Your task to perform on an android device: turn off sleep mode Image 0: 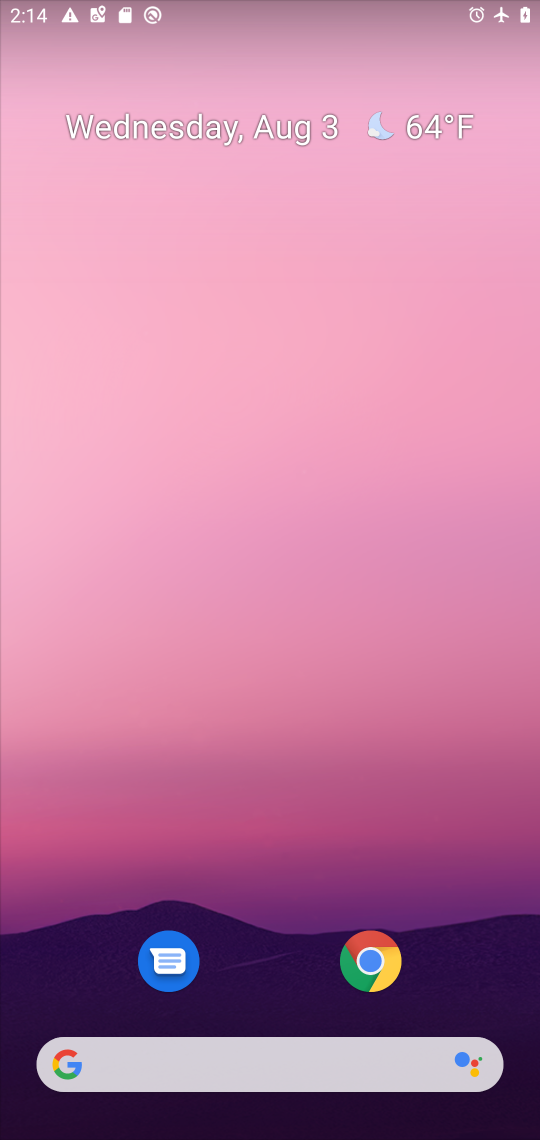
Step 0: drag from (254, 997) to (292, 102)
Your task to perform on an android device: turn off sleep mode Image 1: 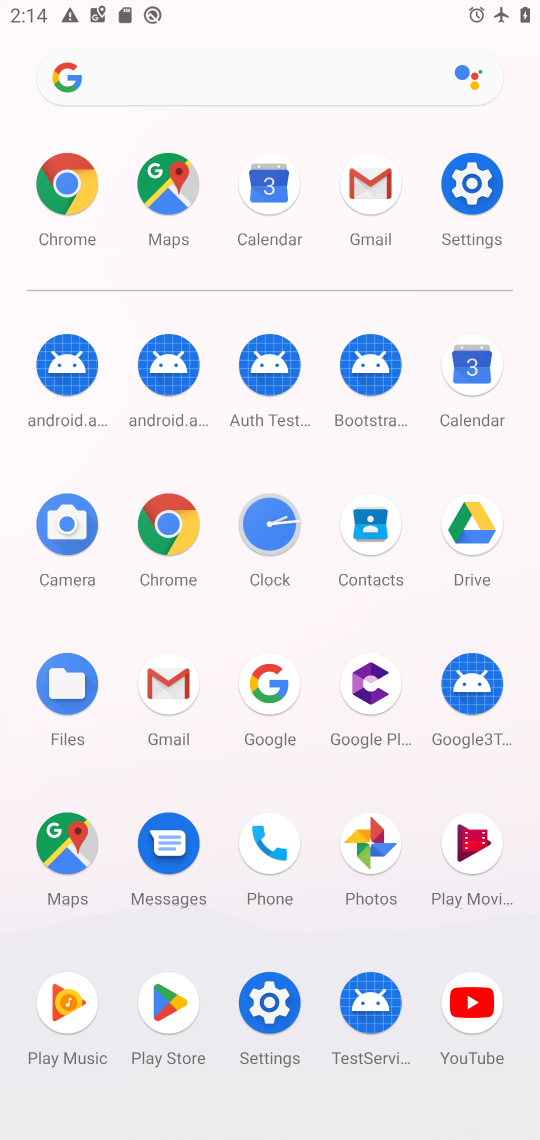
Step 1: click (467, 194)
Your task to perform on an android device: turn off sleep mode Image 2: 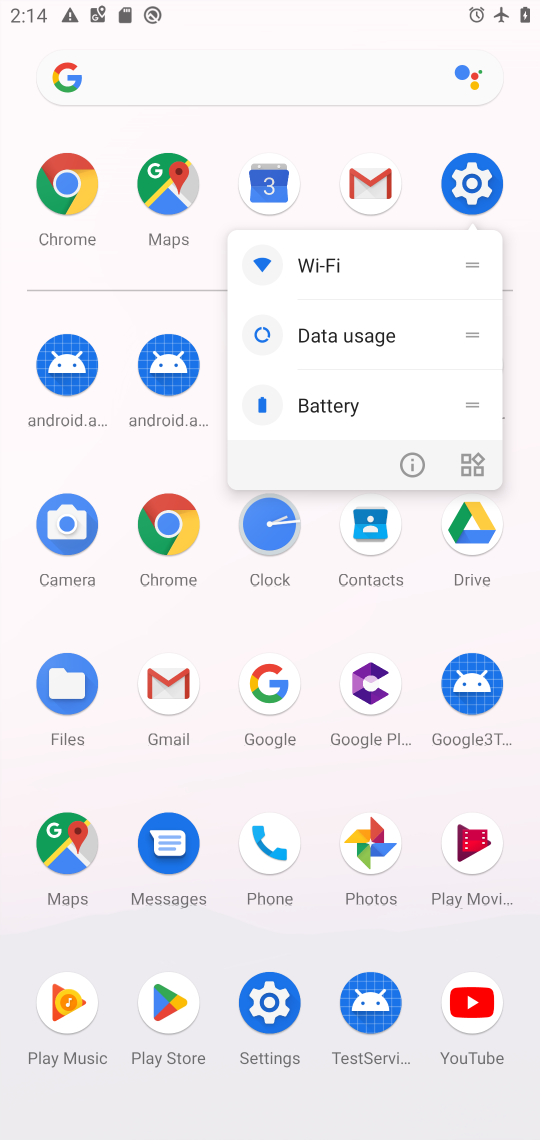
Step 2: click (467, 194)
Your task to perform on an android device: turn off sleep mode Image 3: 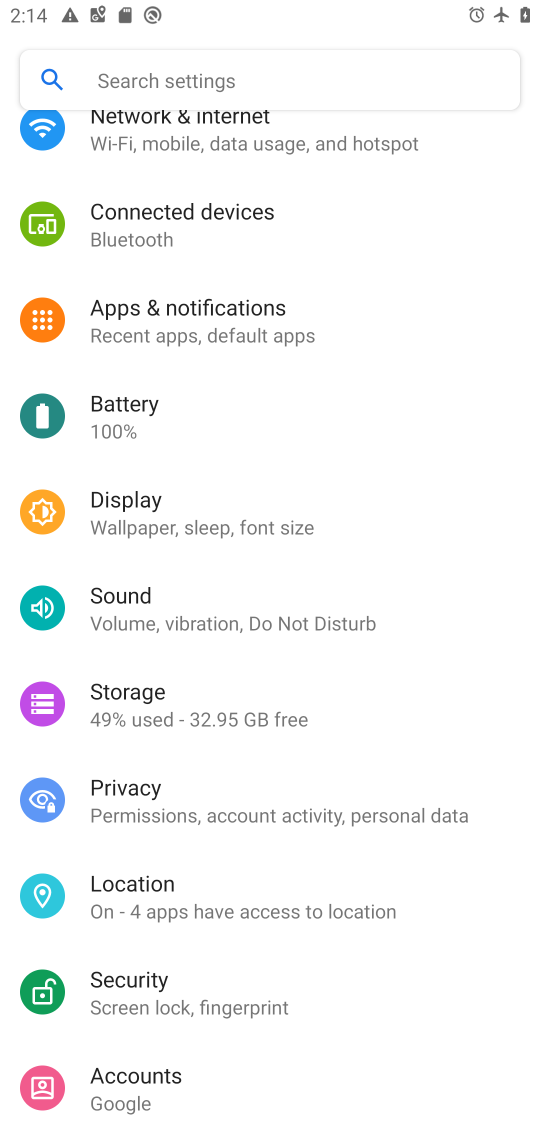
Step 3: click (105, 517)
Your task to perform on an android device: turn off sleep mode Image 4: 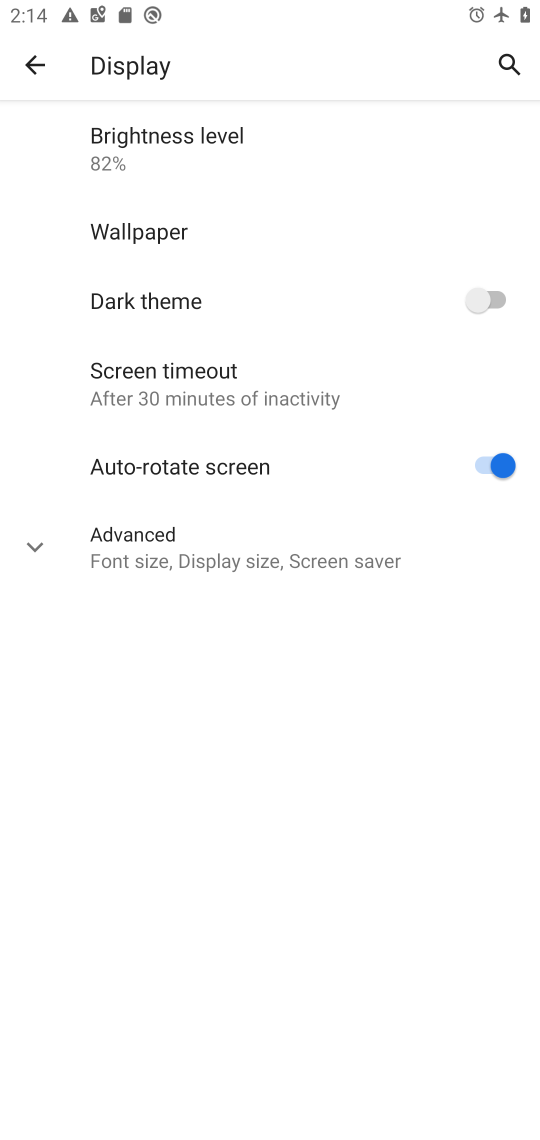
Step 4: click (29, 558)
Your task to perform on an android device: turn off sleep mode Image 5: 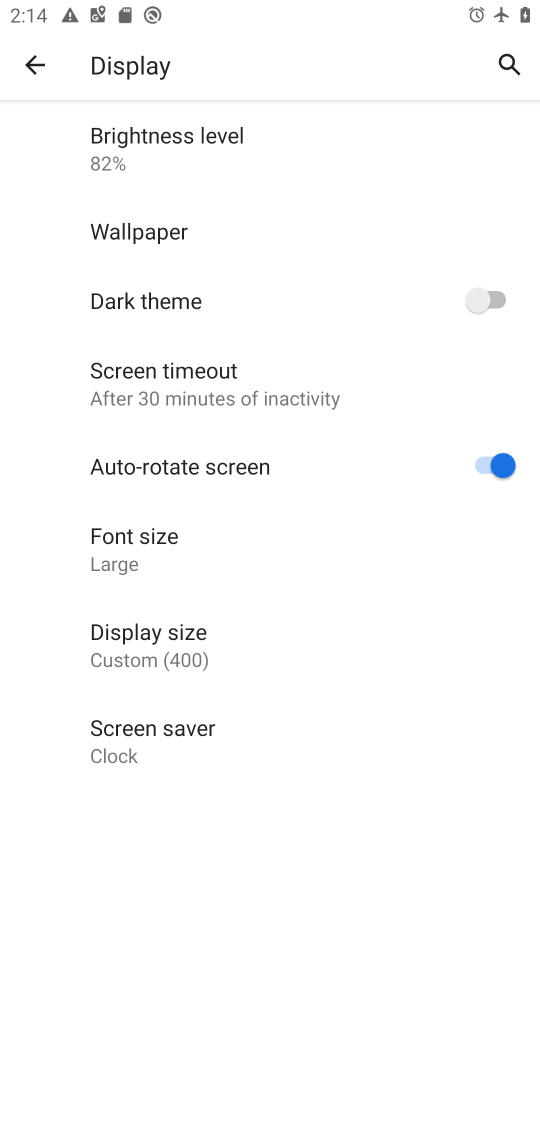
Step 5: task complete